Your task to perform on an android device: check data usage Image 0: 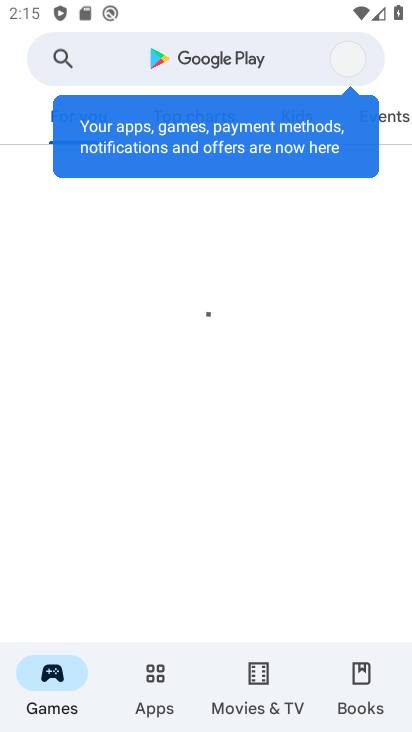
Step 0: press back button
Your task to perform on an android device: check data usage Image 1: 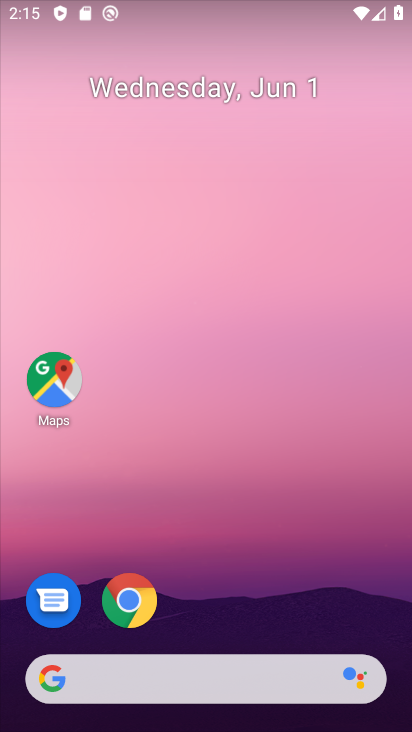
Step 1: drag from (276, 680) to (124, 319)
Your task to perform on an android device: check data usage Image 2: 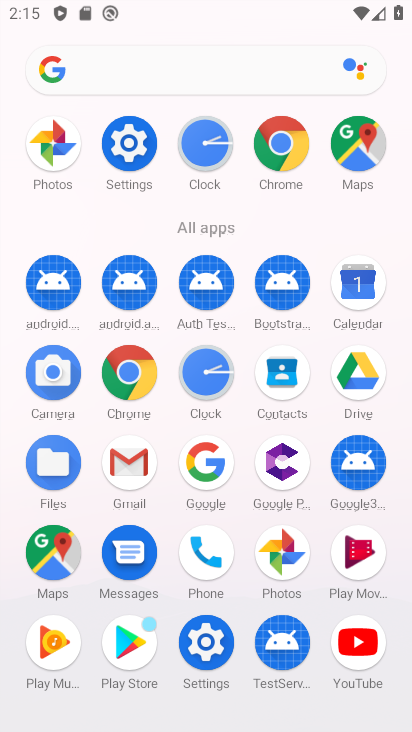
Step 2: click (207, 636)
Your task to perform on an android device: check data usage Image 3: 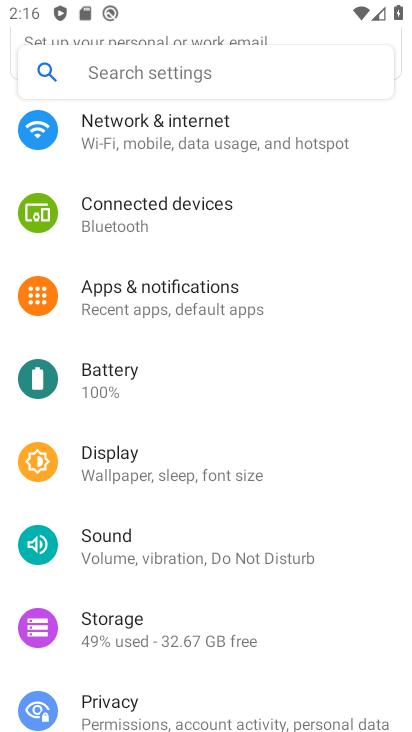
Step 3: click (183, 131)
Your task to perform on an android device: check data usage Image 4: 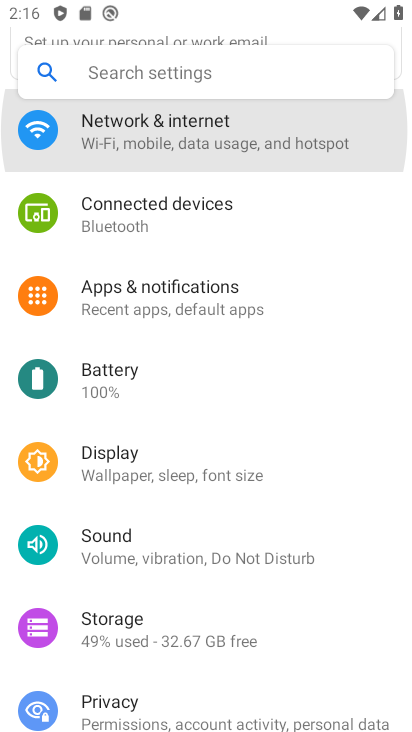
Step 4: click (182, 130)
Your task to perform on an android device: check data usage Image 5: 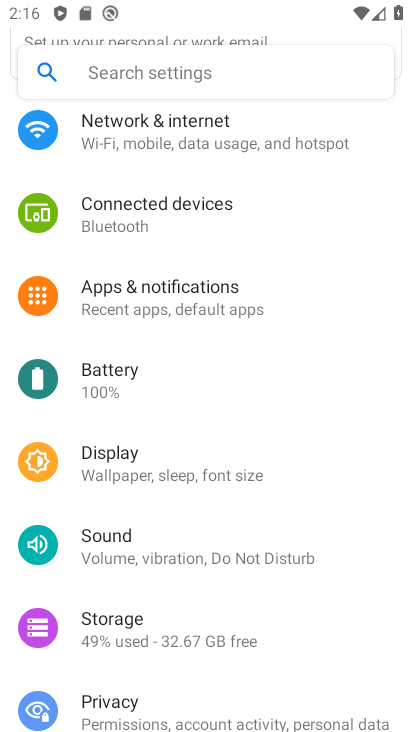
Step 5: click (182, 130)
Your task to perform on an android device: check data usage Image 6: 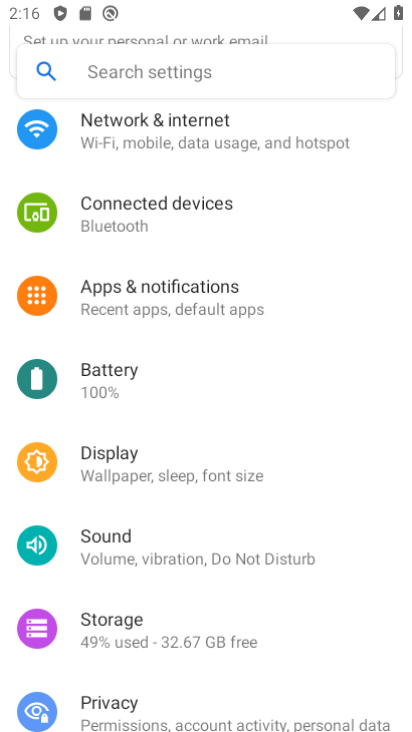
Step 6: click (182, 130)
Your task to perform on an android device: check data usage Image 7: 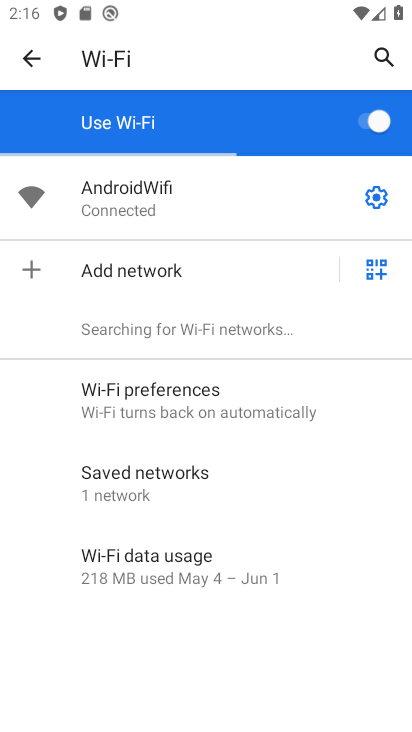
Step 7: click (27, 55)
Your task to perform on an android device: check data usage Image 8: 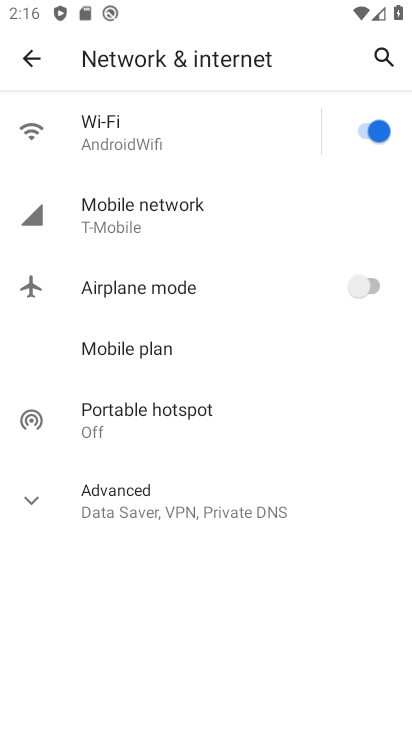
Step 8: click (27, 57)
Your task to perform on an android device: check data usage Image 9: 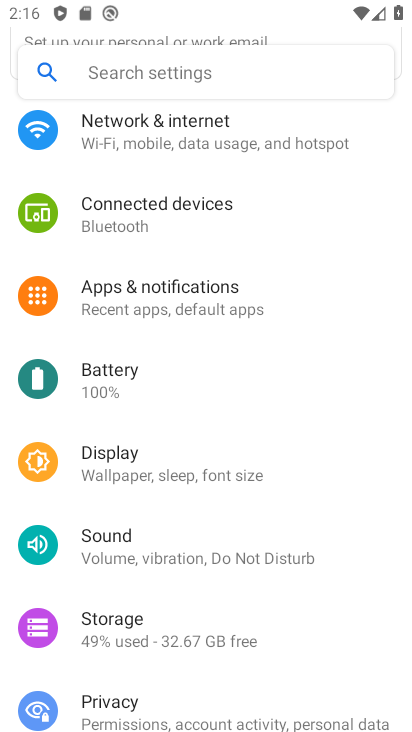
Step 9: click (189, 144)
Your task to perform on an android device: check data usage Image 10: 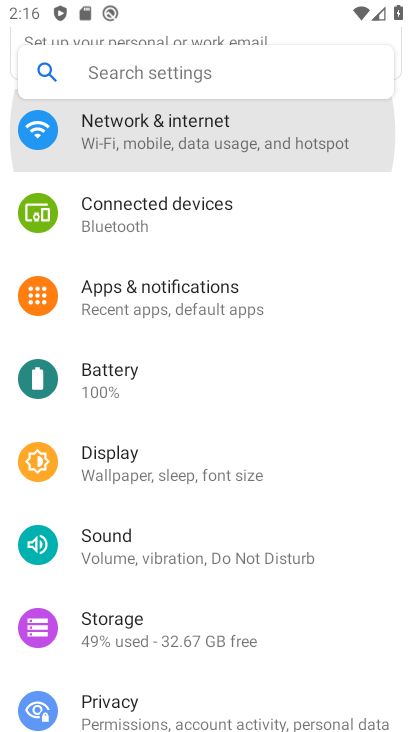
Step 10: click (189, 144)
Your task to perform on an android device: check data usage Image 11: 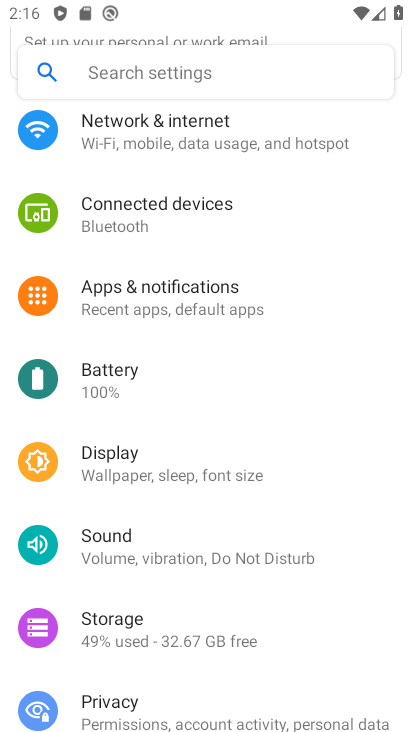
Step 11: click (189, 144)
Your task to perform on an android device: check data usage Image 12: 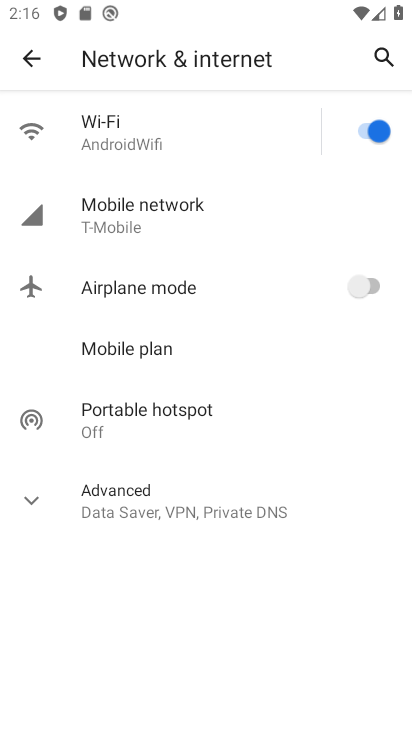
Step 12: task complete